Your task to perform on an android device: see tabs open on other devices in the chrome app Image 0: 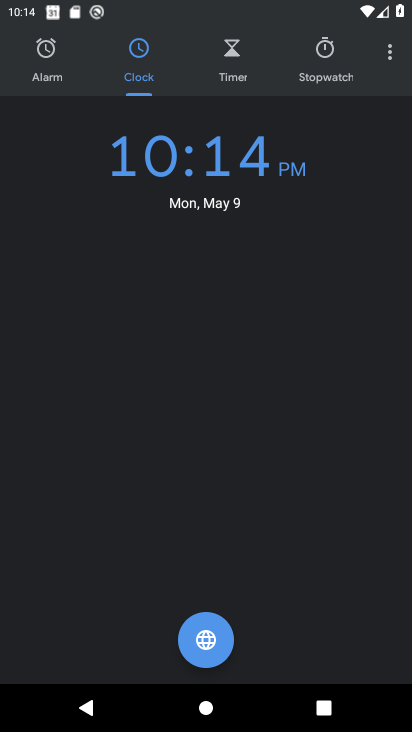
Step 0: press home button
Your task to perform on an android device: see tabs open on other devices in the chrome app Image 1: 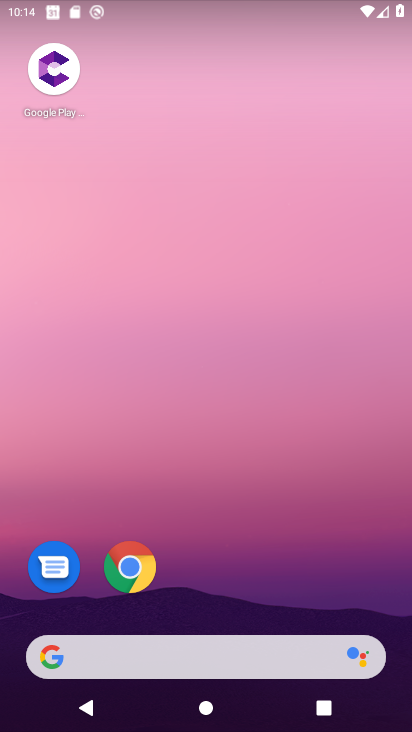
Step 1: click (127, 571)
Your task to perform on an android device: see tabs open on other devices in the chrome app Image 2: 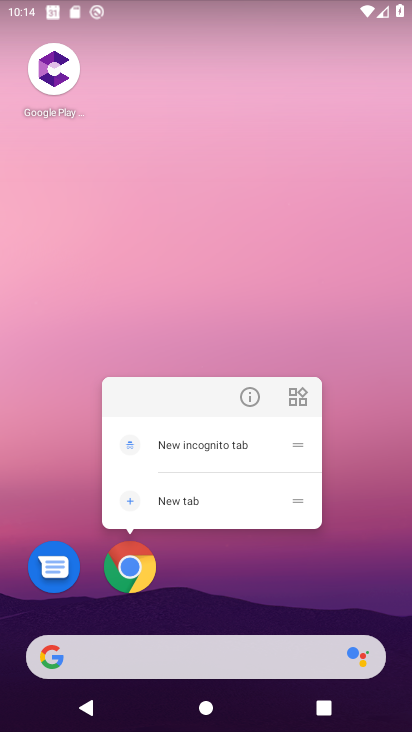
Step 2: click (135, 578)
Your task to perform on an android device: see tabs open on other devices in the chrome app Image 3: 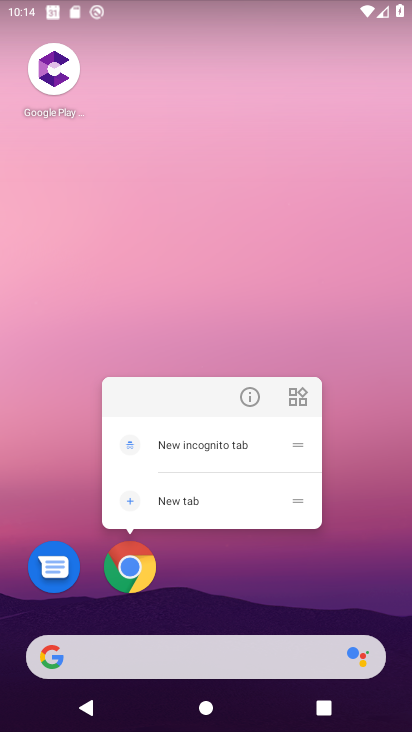
Step 3: click (130, 568)
Your task to perform on an android device: see tabs open on other devices in the chrome app Image 4: 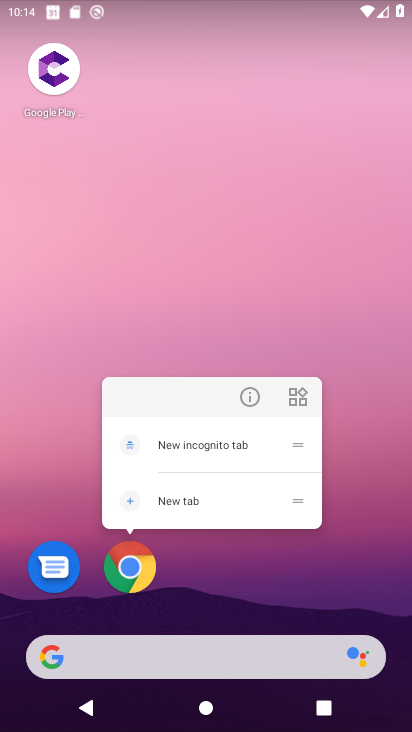
Step 4: click (130, 568)
Your task to perform on an android device: see tabs open on other devices in the chrome app Image 5: 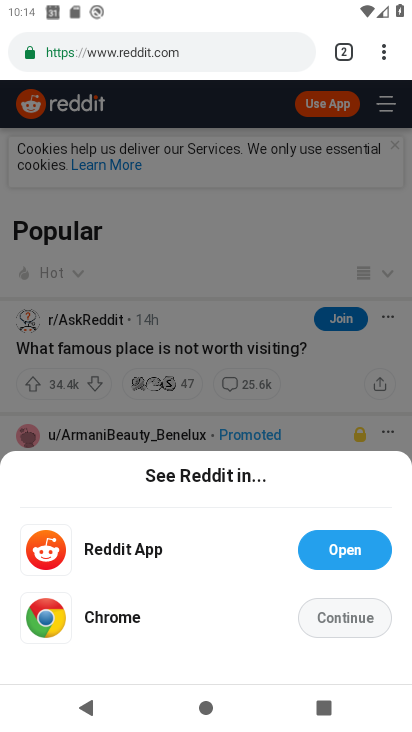
Step 5: click (350, 52)
Your task to perform on an android device: see tabs open on other devices in the chrome app Image 6: 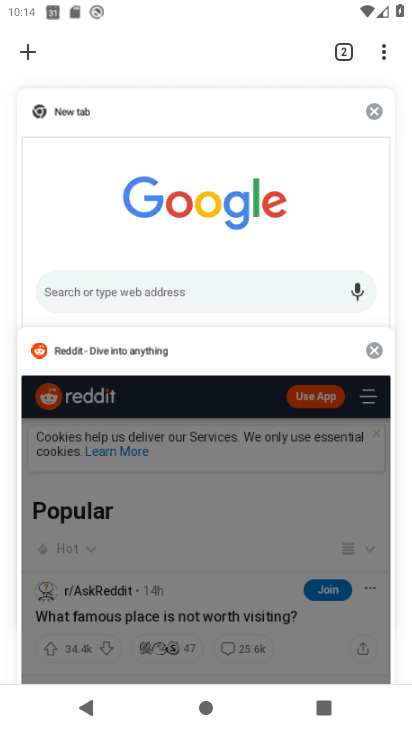
Step 6: task complete